Your task to perform on an android device: Open battery settings Image 0: 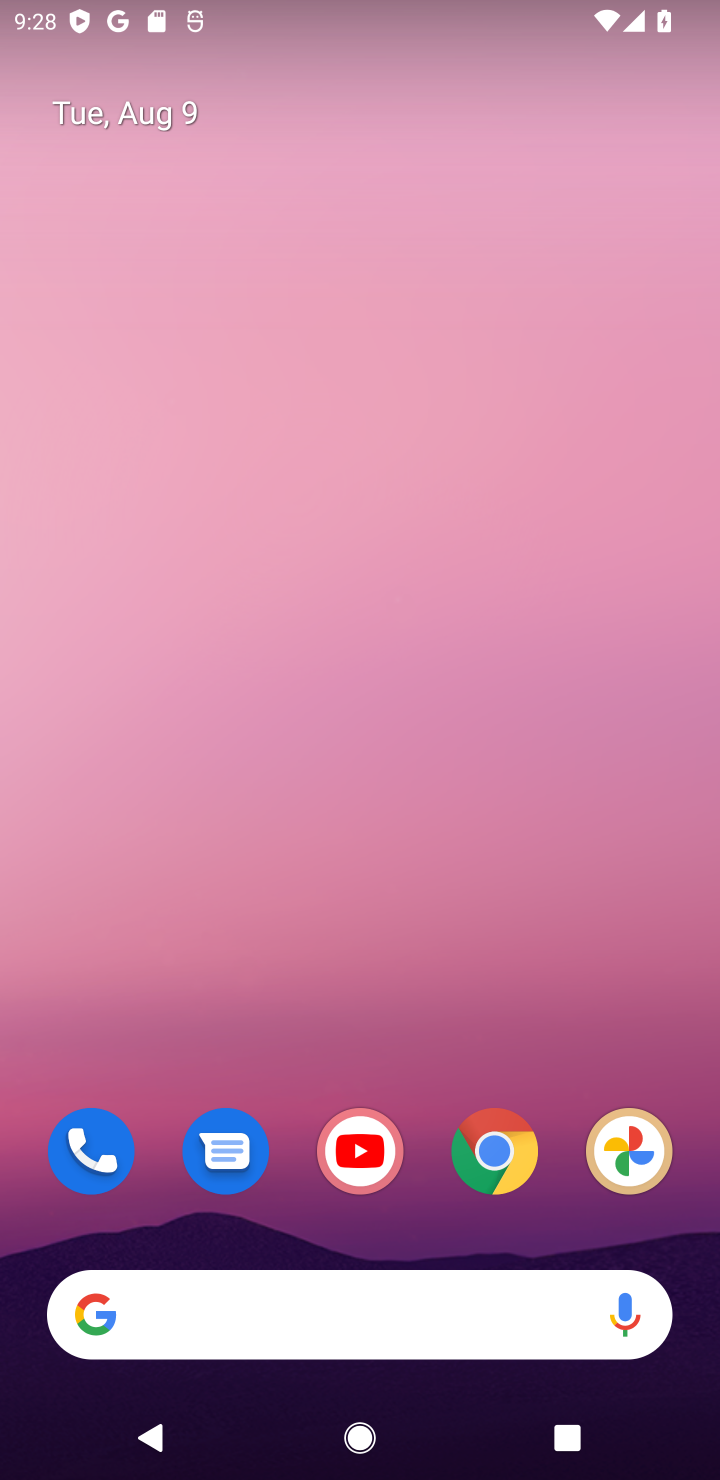
Step 0: drag from (407, 1204) to (395, 148)
Your task to perform on an android device: Open battery settings Image 1: 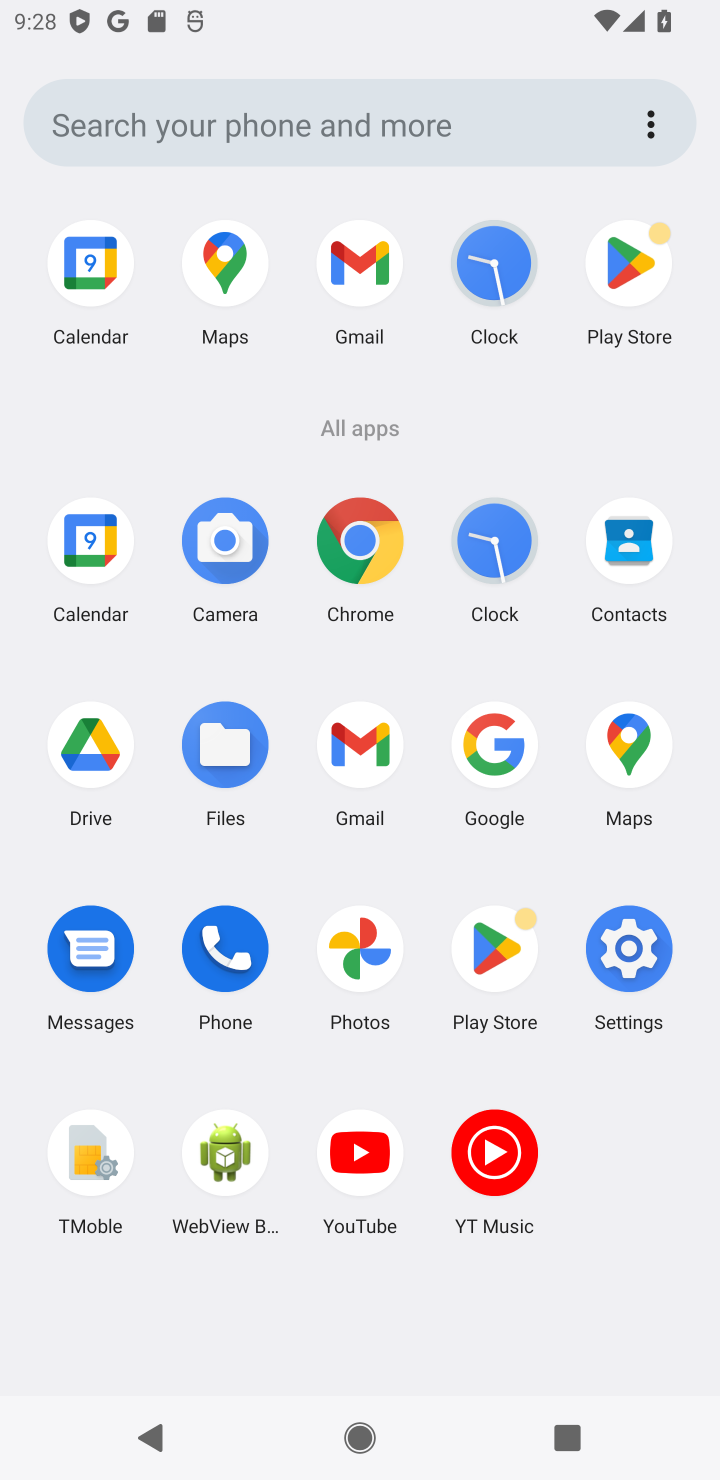
Step 1: click (617, 971)
Your task to perform on an android device: Open battery settings Image 2: 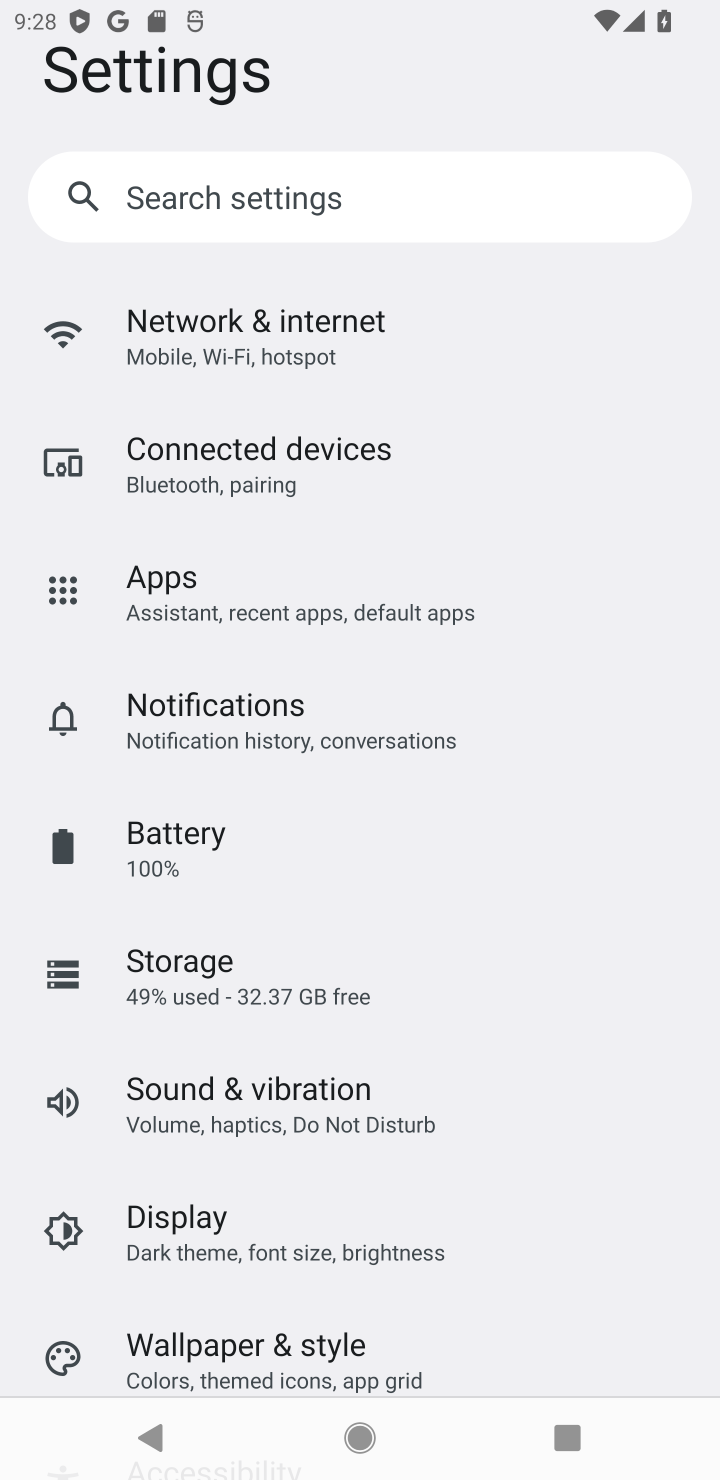
Step 2: click (217, 854)
Your task to perform on an android device: Open battery settings Image 3: 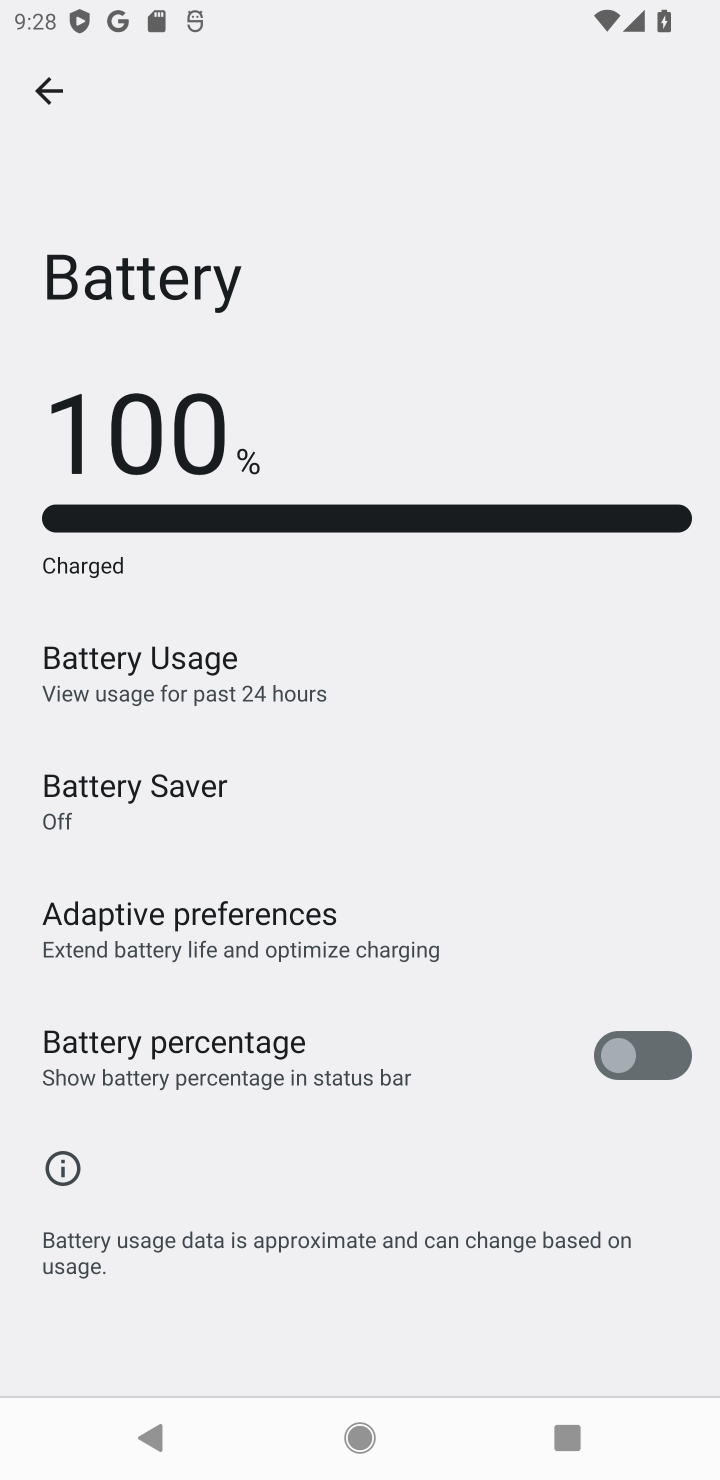
Step 3: task complete